Your task to perform on an android device: Open calendar and show me the second week of next month Image 0: 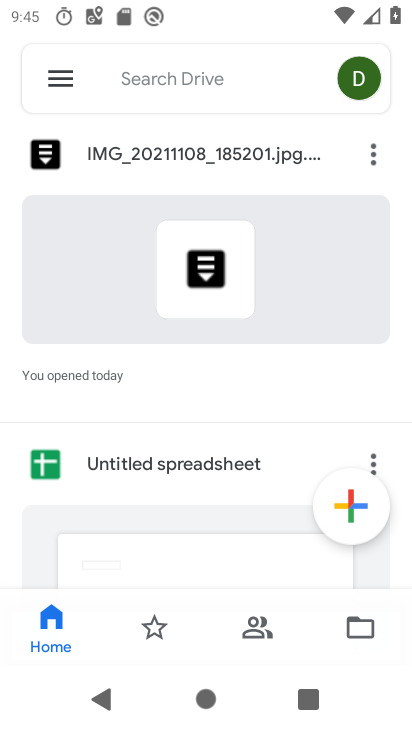
Step 0: press home button
Your task to perform on an android device: Open calendar and show me the second week of next month Image 1: 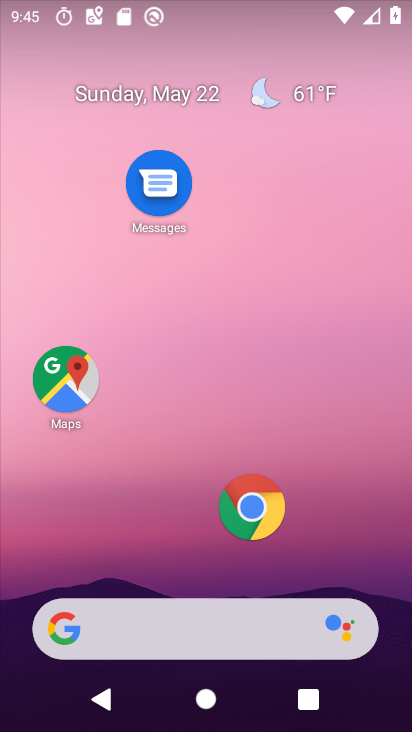
Step 1: click (114, 103)
Your task to perform on an android device: Open calendar and show me the second week of next month Image 2: 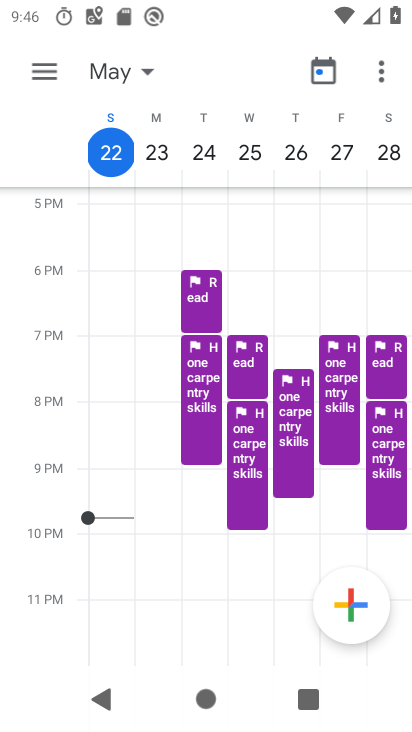
Step 2: click (126, 72)
Your task to perform on an android device: Open calendar and show me the second week of next month Image 3: 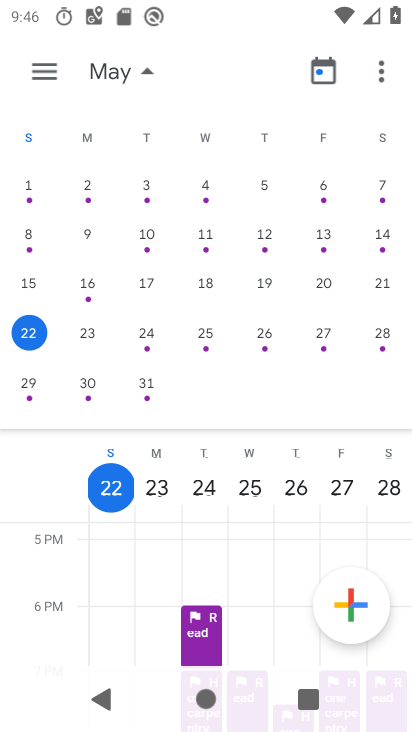
Step 3: click (126, 72)
Your task to perform on an android device: Open calendar and show me the second week of next month Image 4: 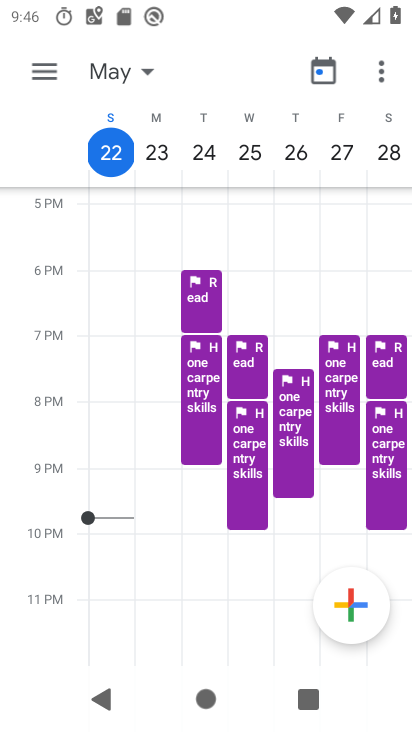
Step 4: click (126, 72)
Your task to perform on an android device: Open calendar and show me the second week of next month Image 5: 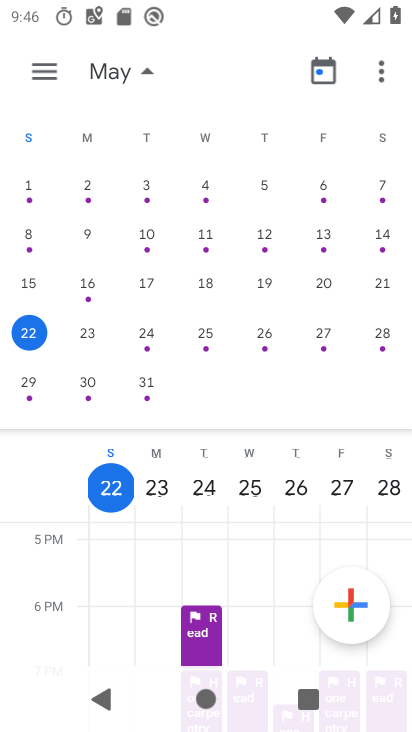
Step 5: click (82, 377)
Your task to perform on an android device: Open calendar and show me the second week of next month Image 6: 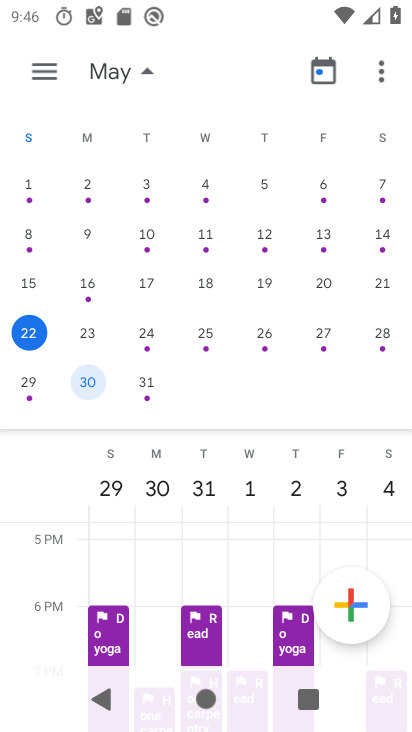
Step 6: task complete